Your task to perform on an android device: Clear the cart on bestbuy. Add usb-c to usb-a to the cart on bestbuy Image 0: 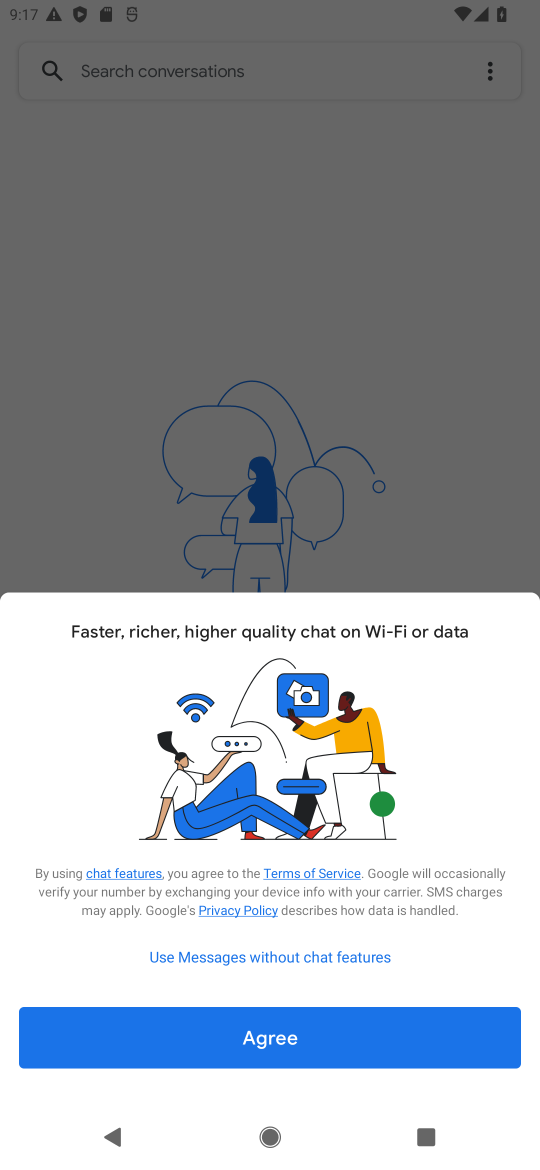
Step 0: press home button
Your task to perform on an android device: Clear the cart on bestbuy. Add usb-c to usb-a to the cart on bestbuy Image 1: 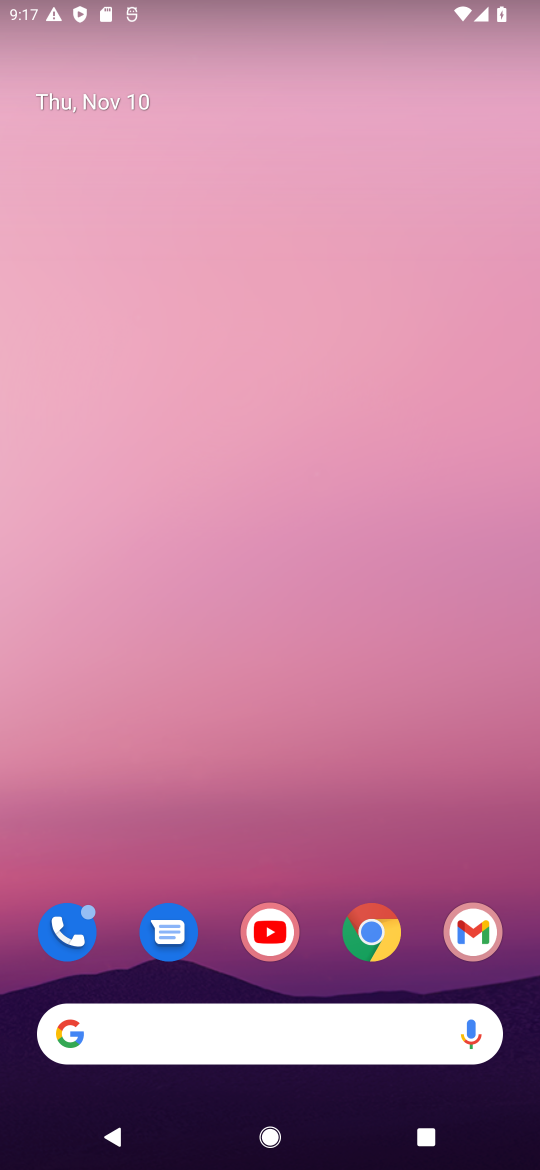
Step 1: click (387, 938)
Your task to perform on an android device: Clear the cart on bestbuy. Add usb-c to usb-a to the cart on bestbuy Image 2: 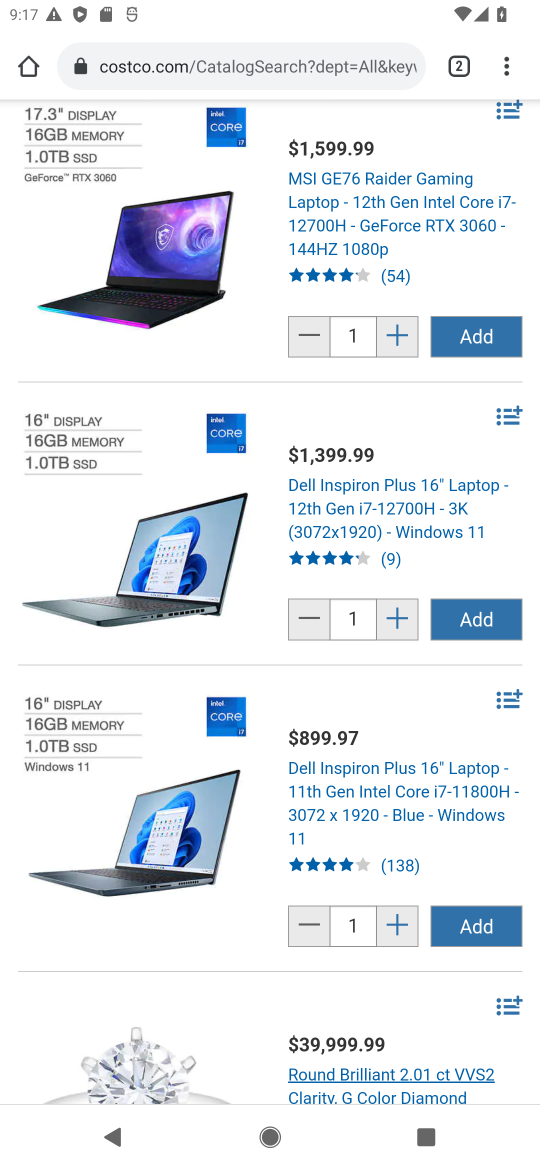
Step 2: click (460, 70)
Your task to perform on an android device: Clear the cart on bestbuy. Add usb-c to usb-a to the cart on bestbuy Image 3: 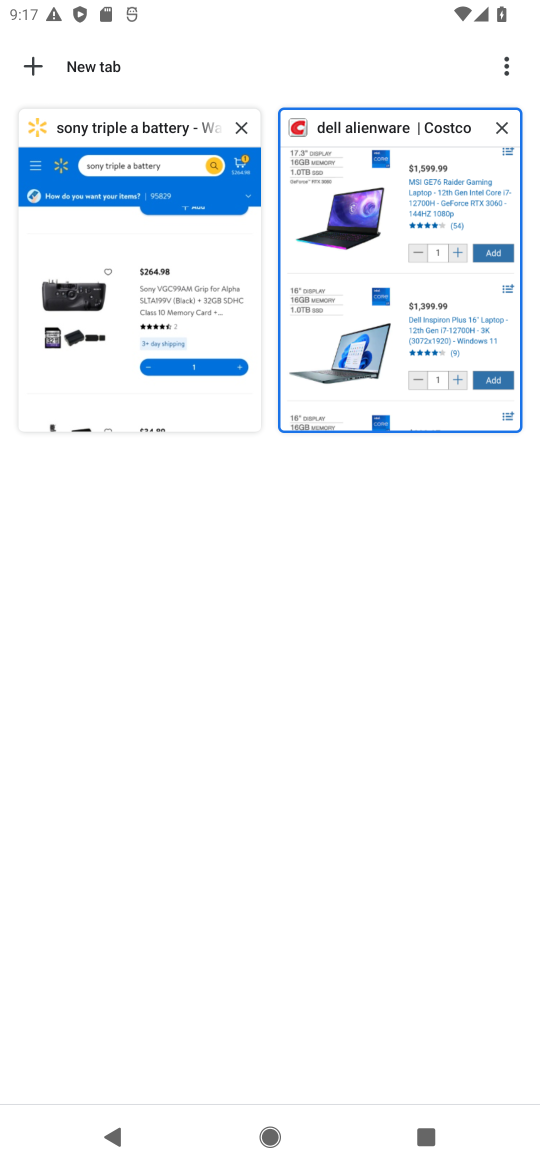
Step 3: click (456, 62)
Your task to perform on an android device: Clear the cart on bestbuy. Add usb-c to usb-a to the cart on bestbuy Image 4: 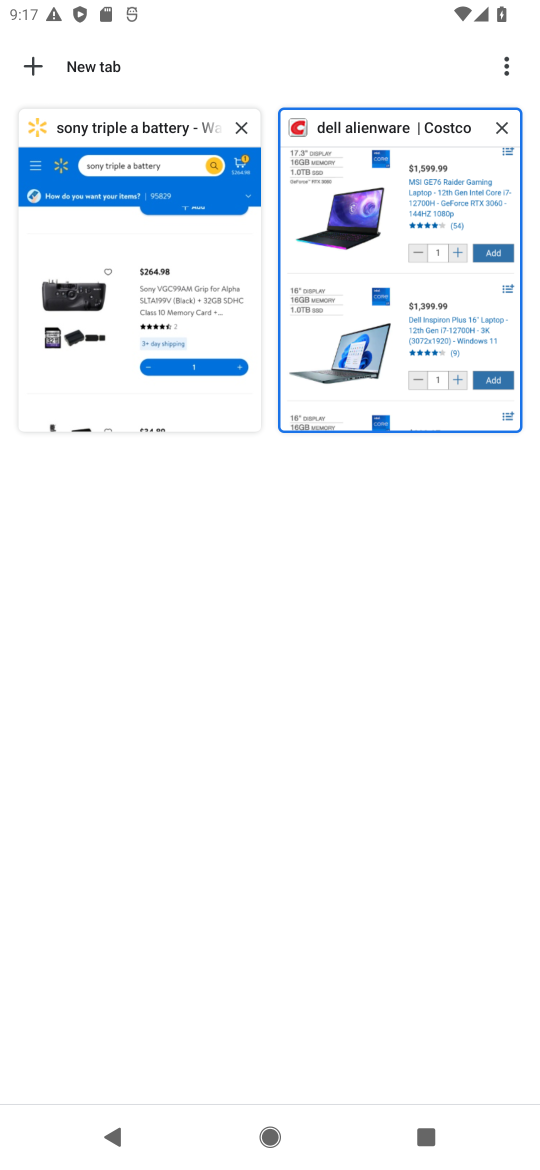
Step 4: click (28, 58)
Your task to perform on an android device: Clear the cart on bestbuy. Add usb-c to usb-a to the cart on bestbuy Image 5: 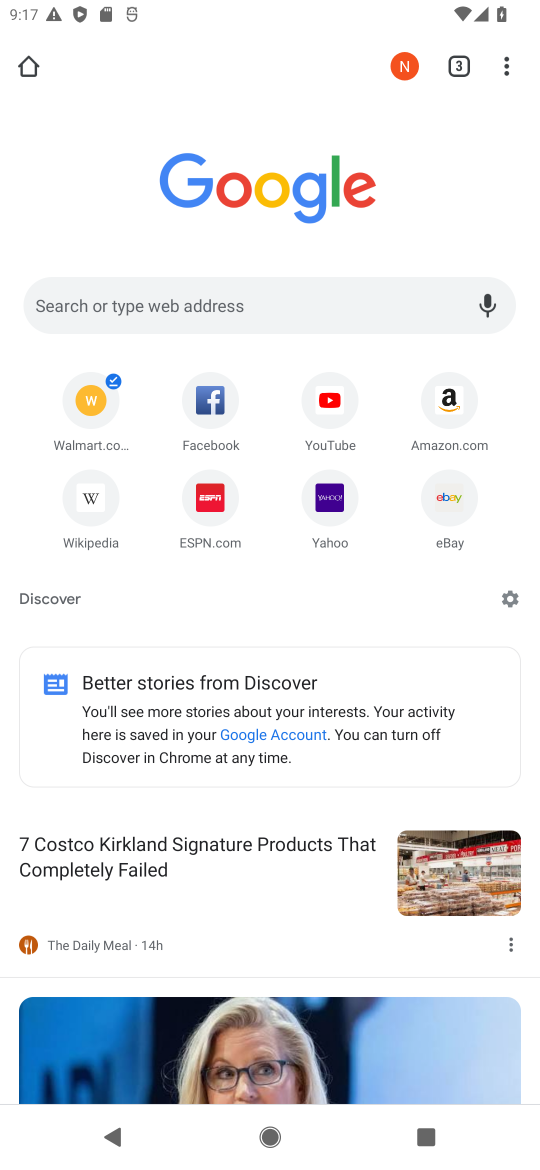
Step 5: click (33, 57)
Your task to perform on an android device: Clear the cart on bestbuy. Add usb-c to usb-a to the cart on bestbuy Image 6: 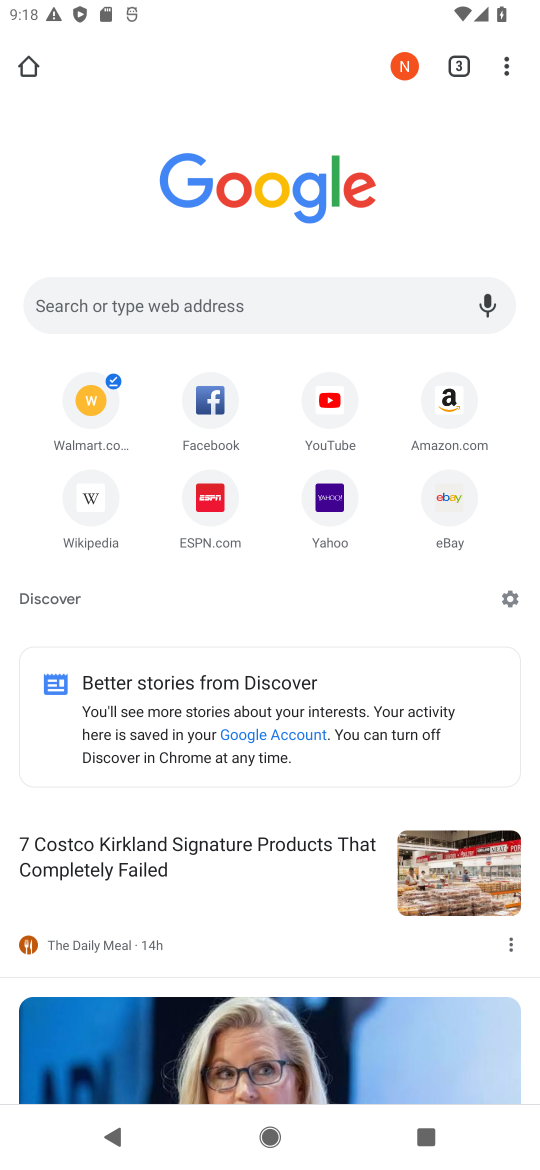
Step 6: click (172, 311)
Your task to perform on an android device: Clear the cart on bestbuy. Add usb-c to usb-a to the cart on bestbuy Image 7: 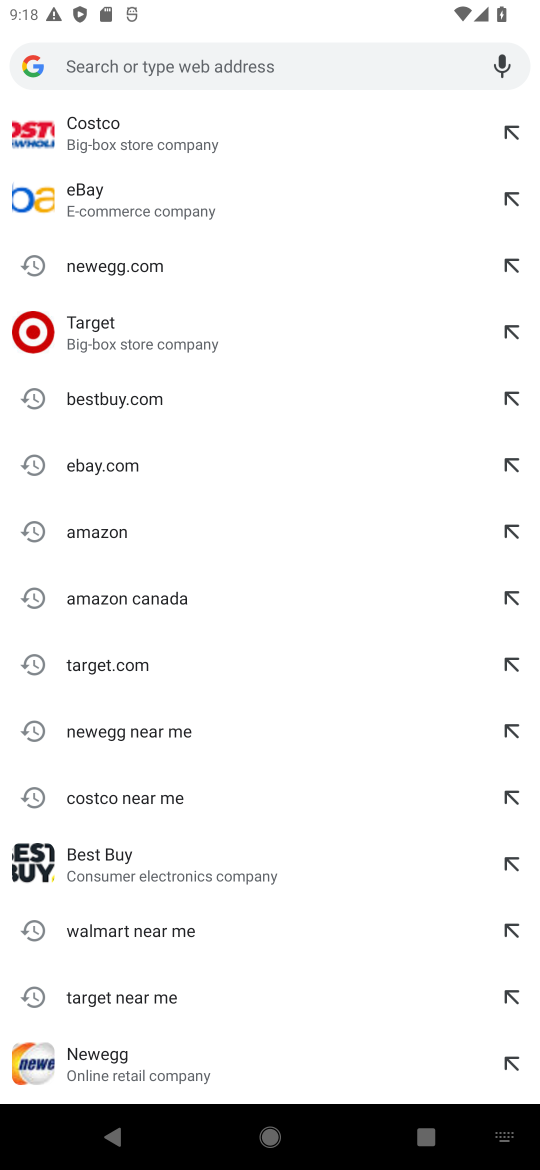
Step 7: click (108, 863)
Your task to perform on an android device: Clear the cart on bestbuy. Add usb-c to usb-a to the cart on bestbuy Image 8: 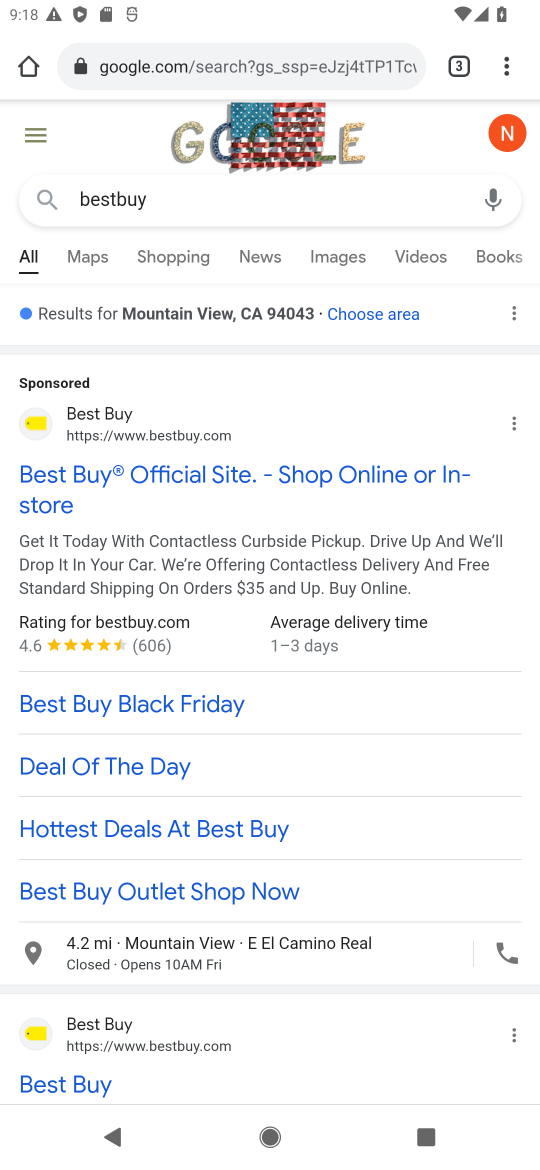
Step 8: drag from (257, 816) to (379, 238)
Your task to perform on an android device: Clear the cart on bestbuy. Add usb-c to usb-a to the cart on bestbuy Image 9: 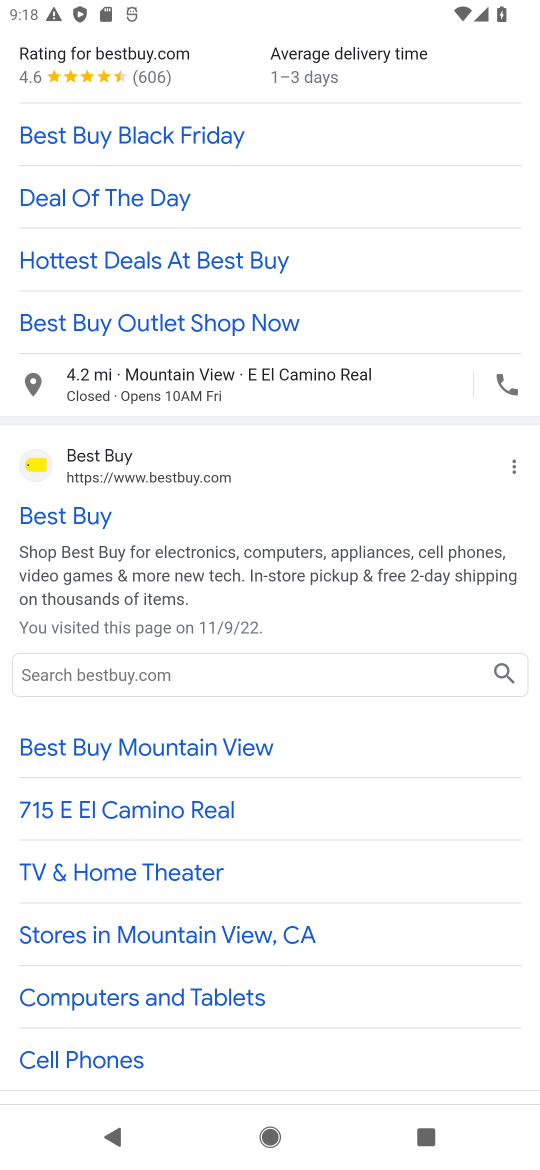
Step 9: click (139, 673)
Your task to perform on an android device: Clear the cart on bestbuy. Add usb-c to usb-a to the cart on bestbuy Image 10: 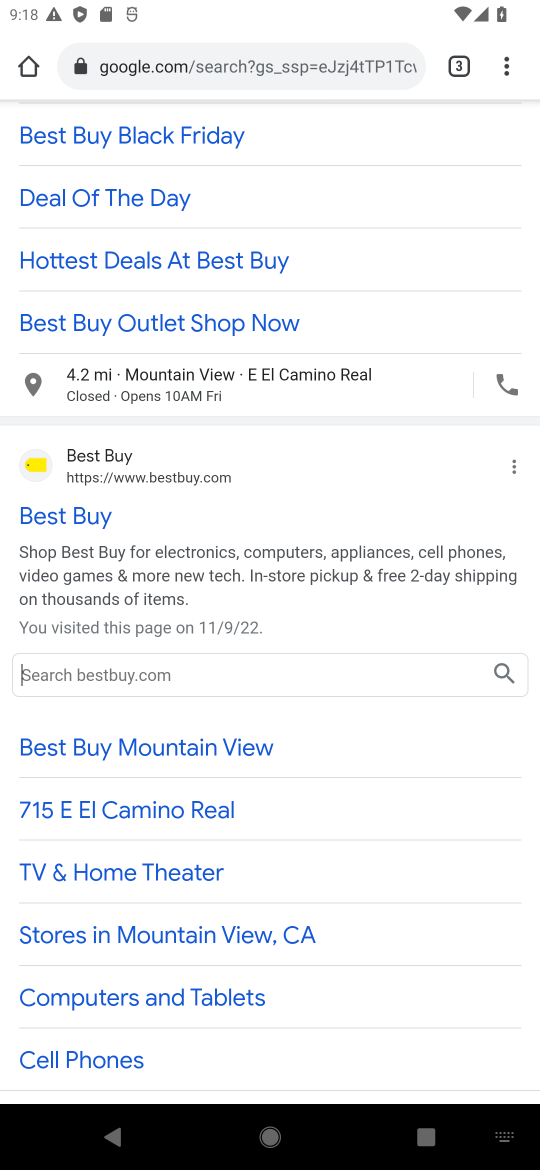
Step 10: type "usb-c to usb-a "
Your task to perform on an android device: Clear the cart on bestbuy. Add usb-c to usb-a to the cart on bestbuy Image 11: 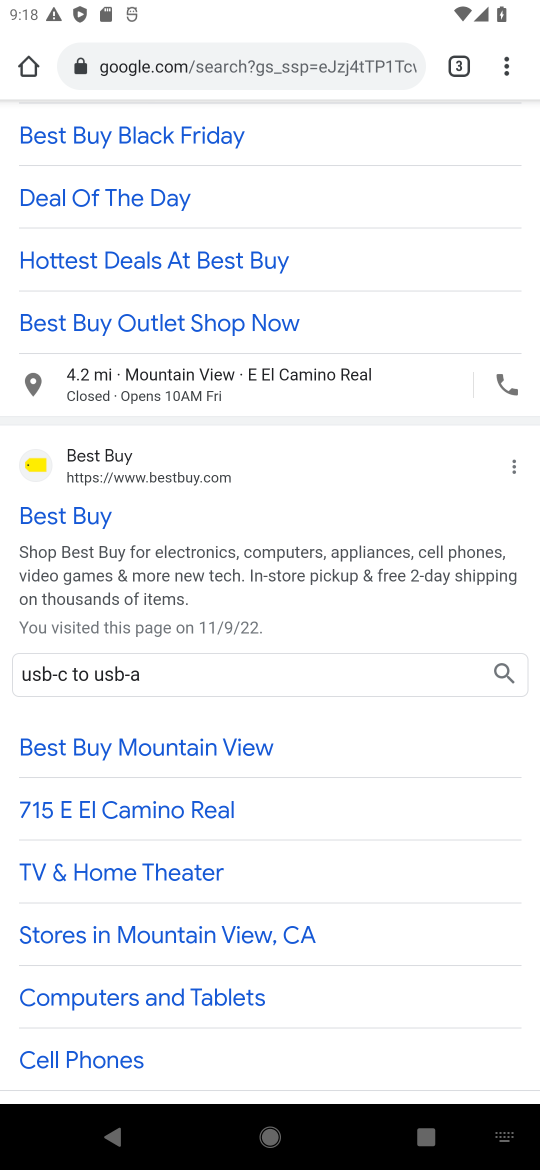
Step 11: click (499, 671)
Your task to perform on an android device: Clear the cart on bestbuy. Add usb-c to usb-a to the cart on bestbuy Image 12: 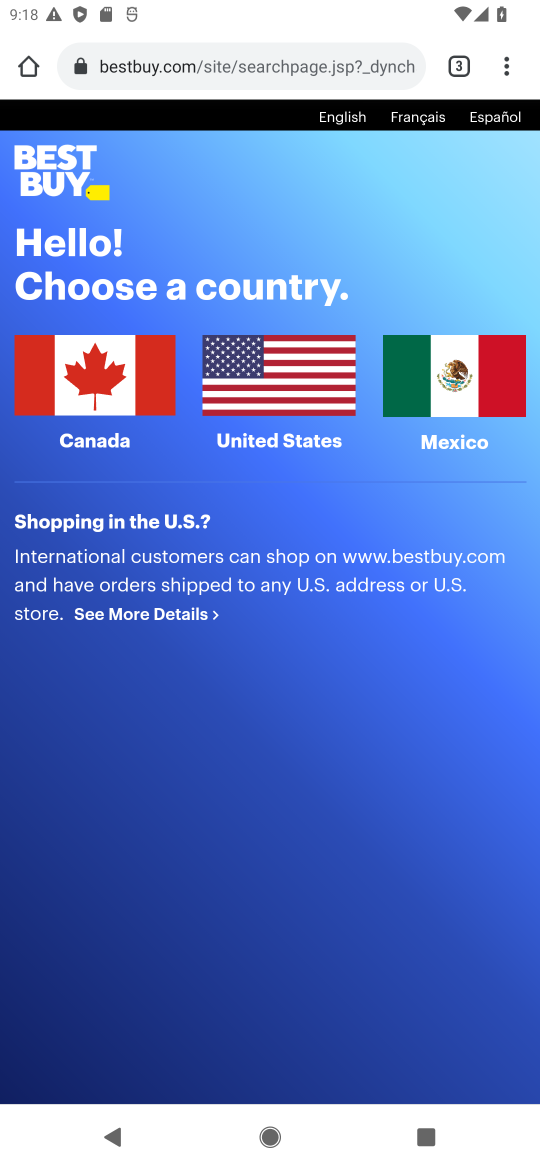
Step 12: click (291, 380)
Your task to perform on an android device: Clear the cart on bestbuy. Add usb-c to usb-a to the cart on bestbuy Image 13: 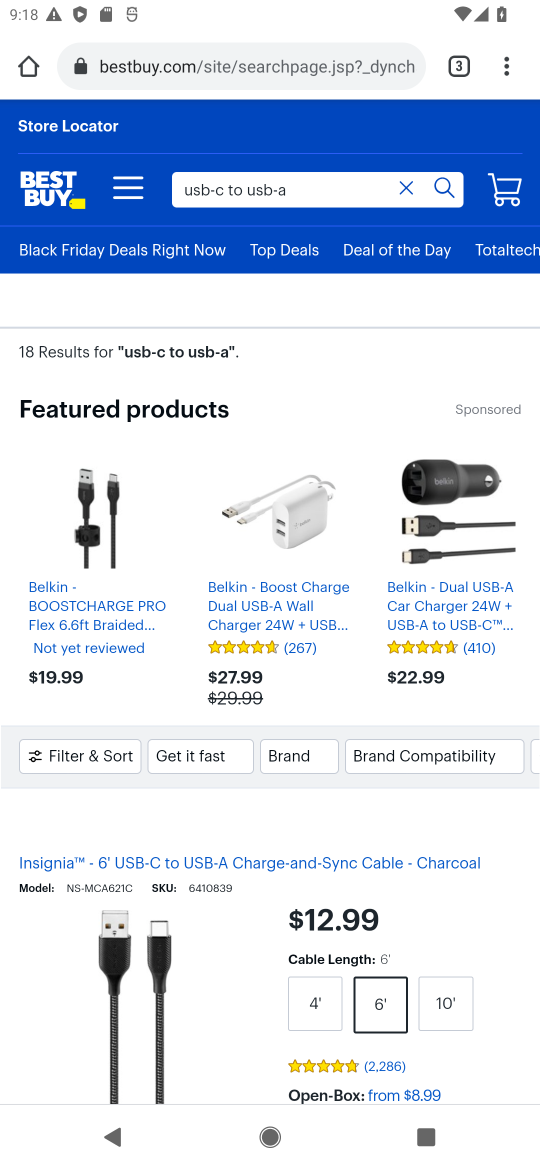
Step 13: drag from (389, 847) to (534, 720)
Your task to perform on an android device: Clear the cart on bestbuy. Add usb-c to usb-a to the cart on bestbuy Image 14: 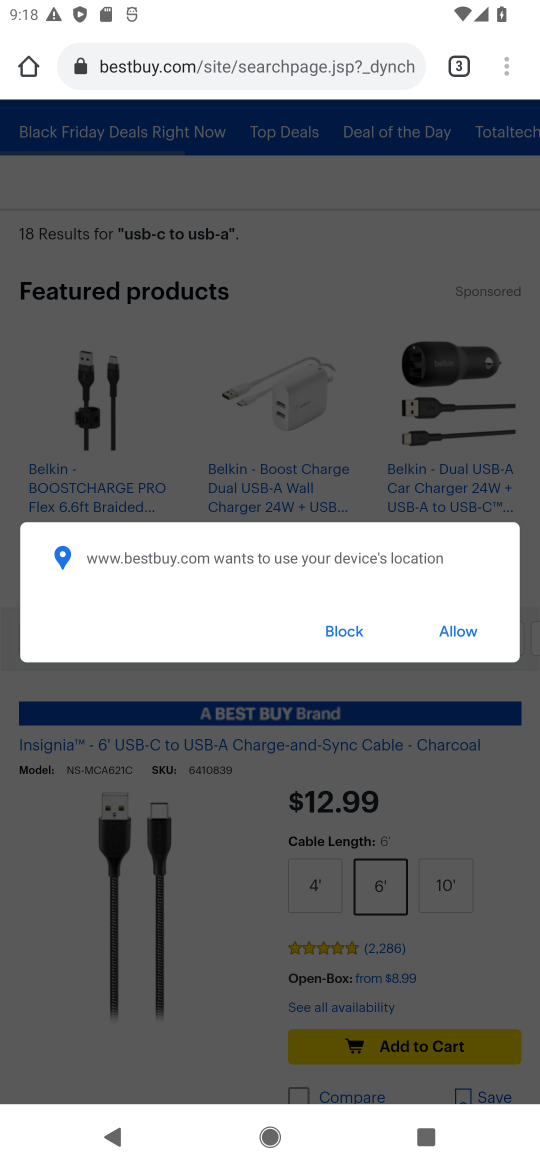
Step 14: click (448, 1041)
Your task to perform on an android device: Clear the cart on bestbuy. Add usb-c to usb-a to the cart on bestbuy Image 15: 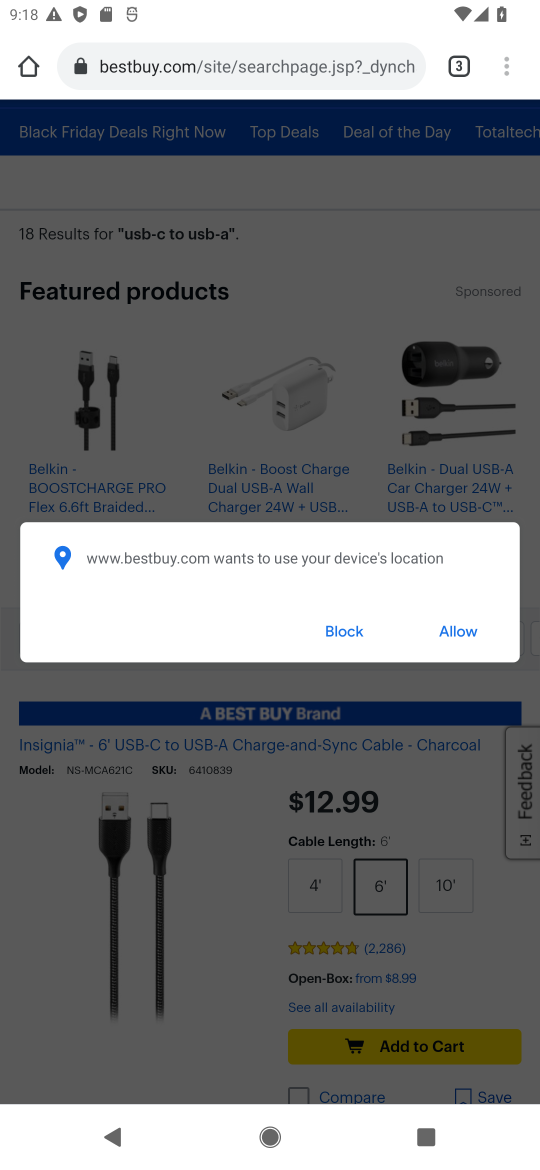
Step 15: click (342, 631)
Your task to perform on an android device: Clear the cart on bestbuy. Add usb-c to usb-a to the cart on bestbuy Image 16: 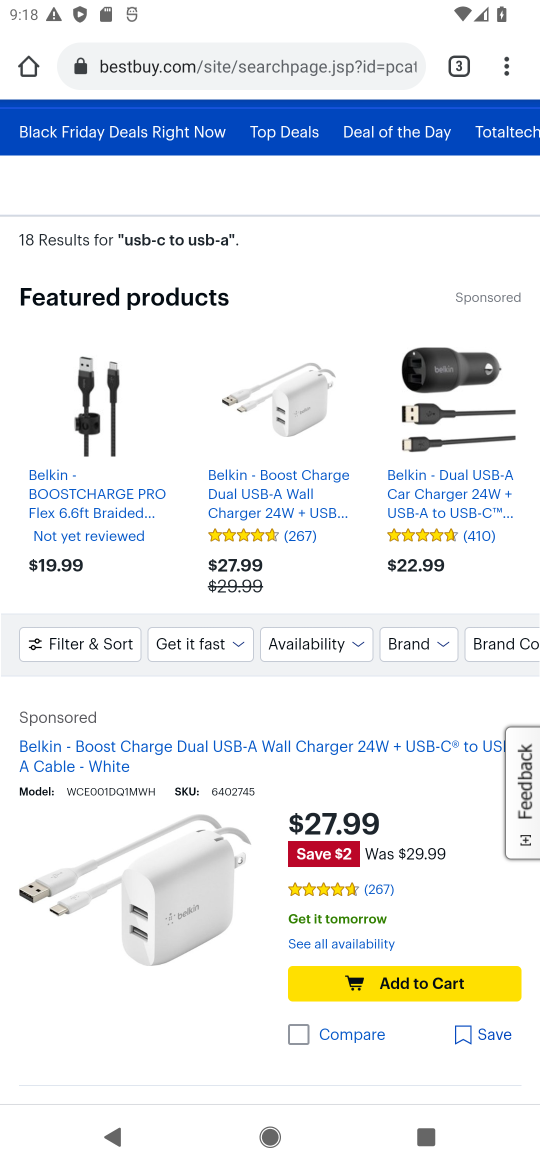
Step 16: click (399, 977)
Your task to perform on an android device: Clear the cart on bestbuy. Add usb-c to usb-a to the cart on bestbuy Image 17: 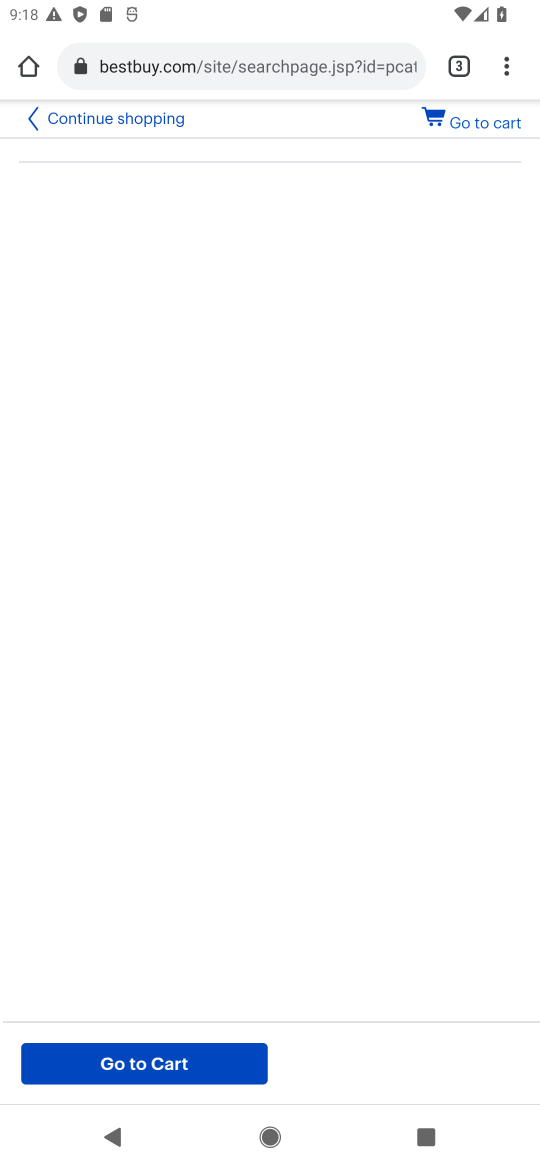
Step 17: task complete